Your task to perform on an android device: Add "logitech g903" to the cart on costco, then select checkout. Image 0: 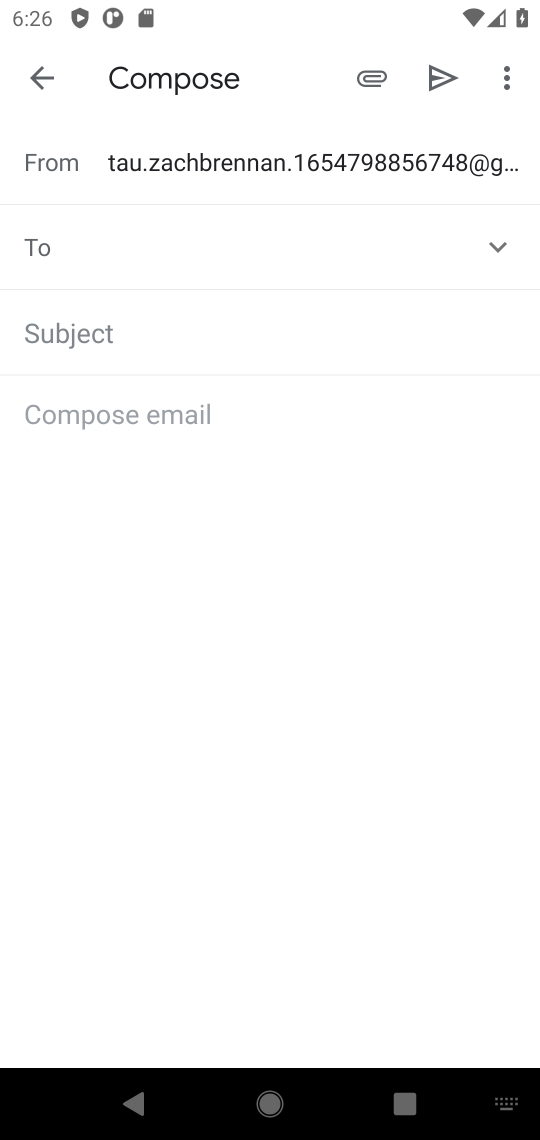
Step 0: press home button
Your task to perform on an android device: Add "logitech g903" to the cart on costco, then select checkout. Image 1: 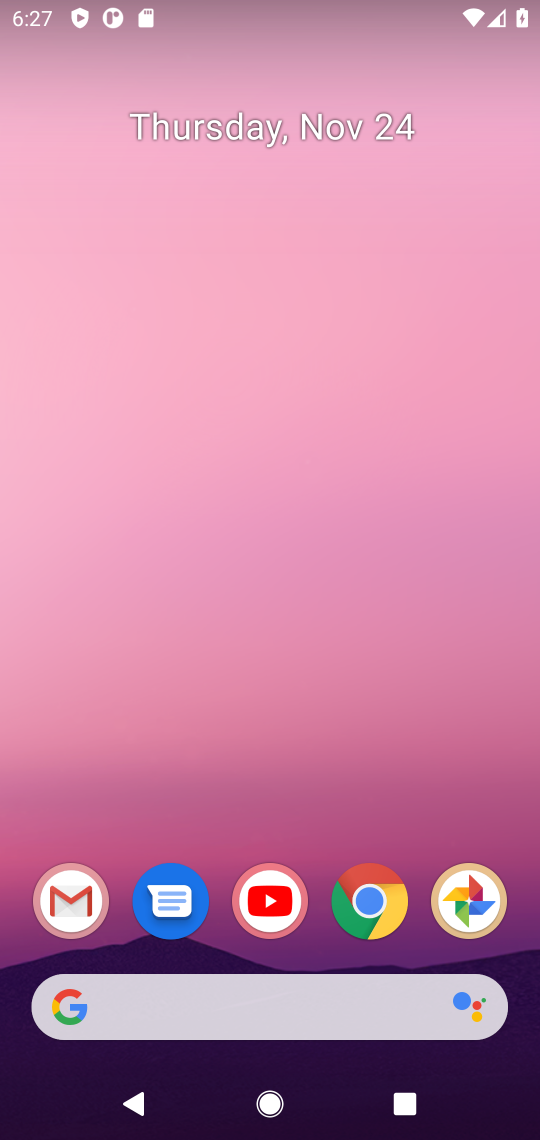
Step 1: click (377, 903)
Your task to perform on an android device: Add "logitech g903" to the cart on costco, then select checkout. Image 2: 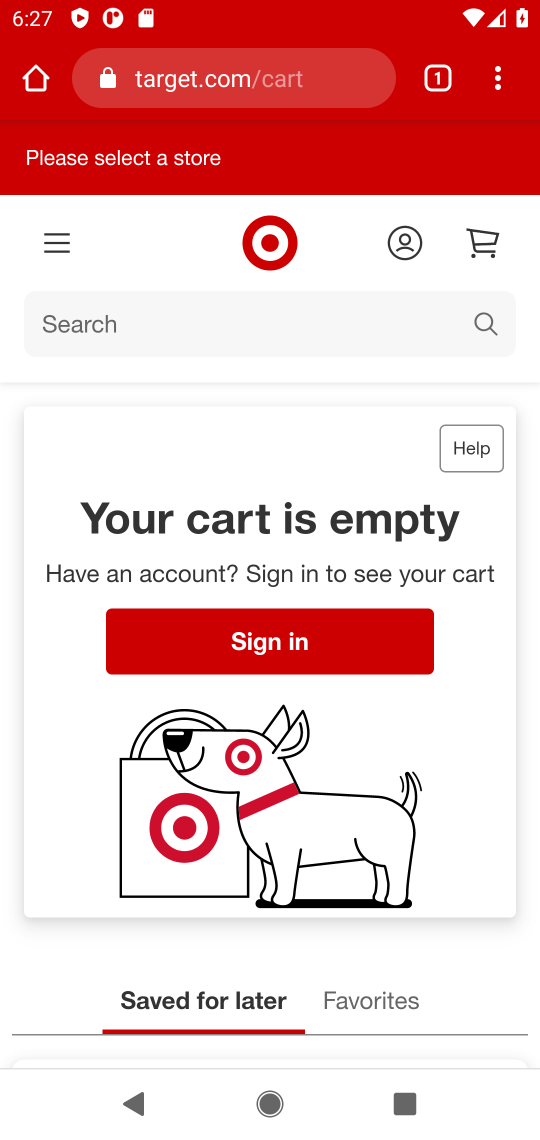
Step 2: click (283, 85)
Your task to perform on an android device: Add "logitech g903" to the cart on costco, then select checkout. Image 3: 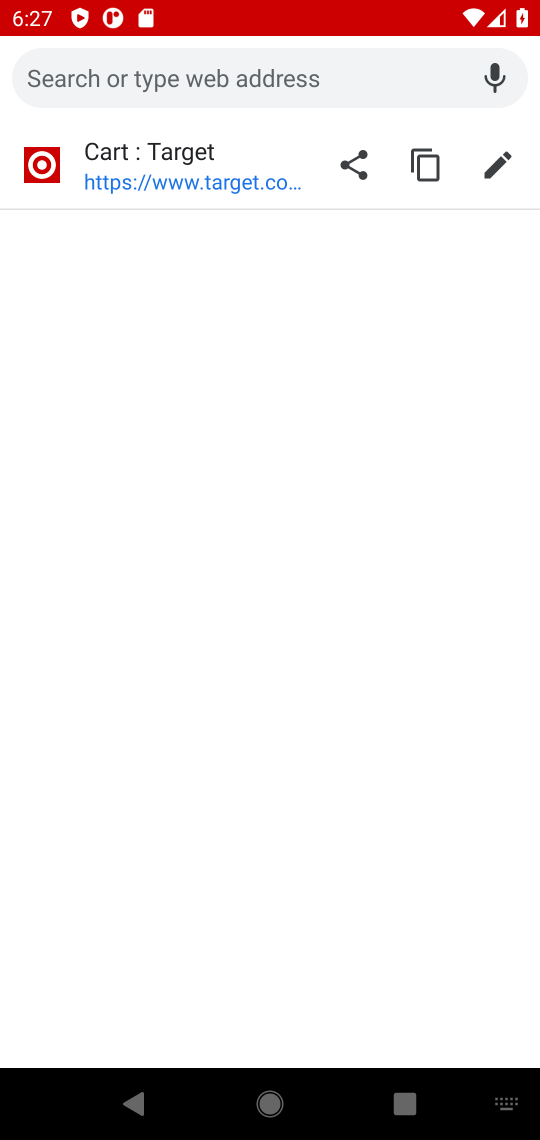
Step 3: click (280, 85)
Your task to perform on an android device: Add "logitech g903" to the cart on costco, then select checkout. Image 4: 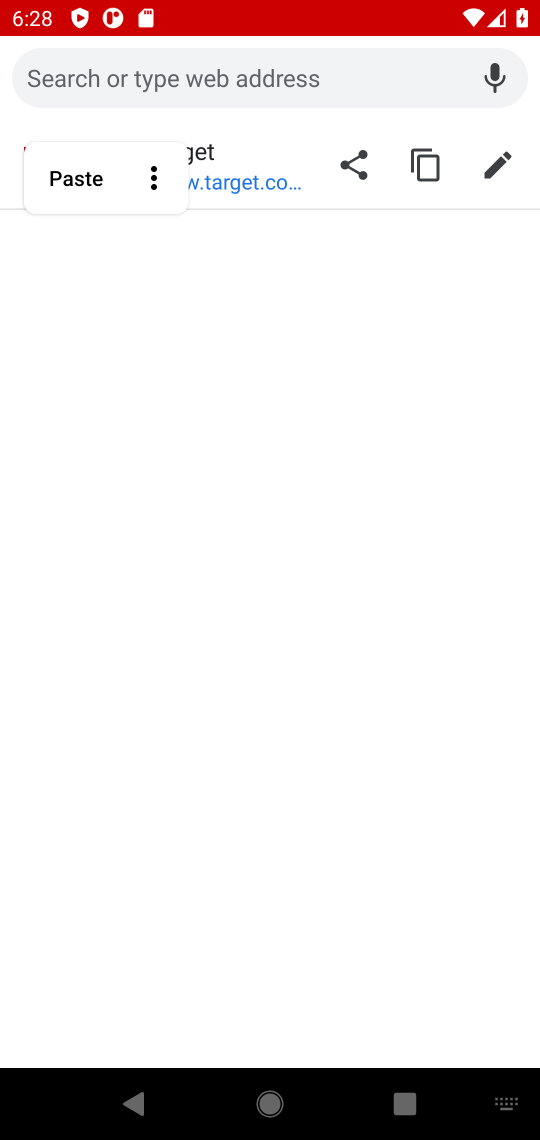
Step 4: type "costco"
Your task to perform on an android device: Add "logitech g903" to the cart on costco, then select checkout. Image 5: 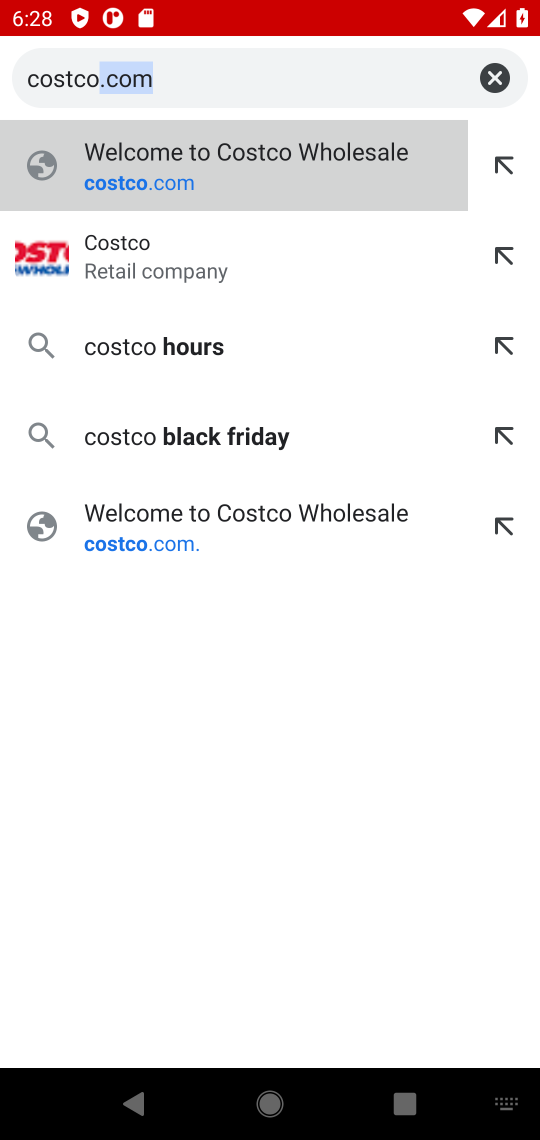
Step 5: click (337, 198)
Your task to perform on an android device: Add "logitech g903" to the cart on costco, then select checkout. Image 6: 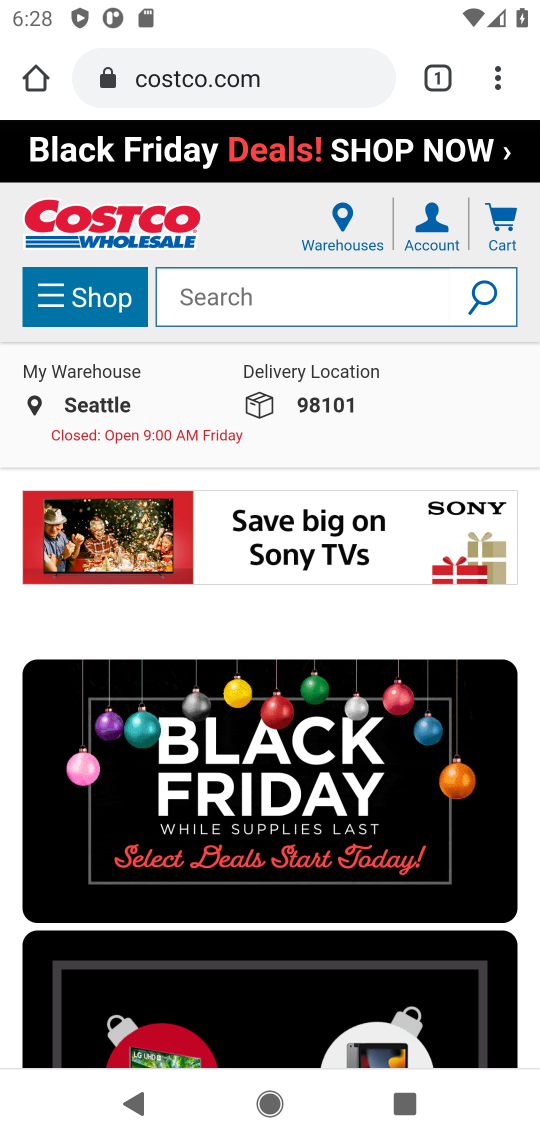
Step 6: click (339, 298)
Your task to perform on an android device: Add "logitech g903" to the cart on costco, then select checkout. Image 7: 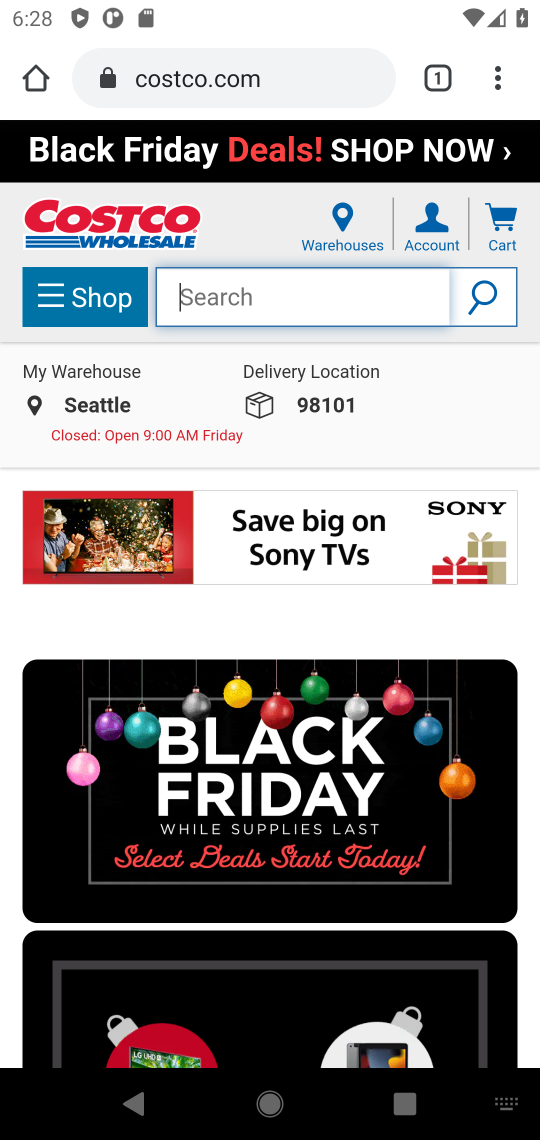
Step 7: type "logitech g903"
Your task to perform on an android device: Add "logitech g903" to the cart on costco, then select checkout. Image 8: 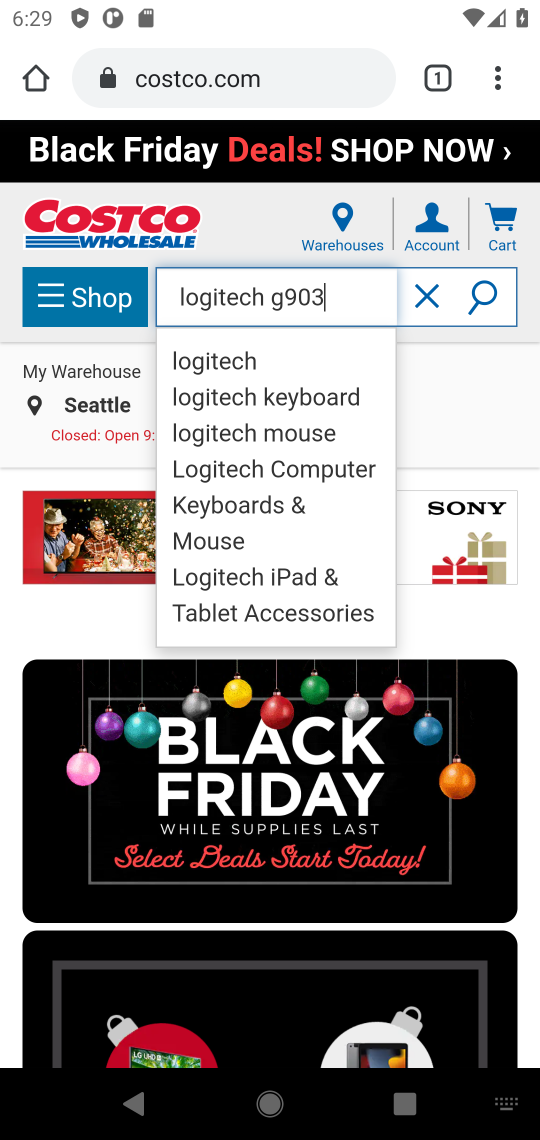
Step 8: press enter
Your task to perform on an android device: Add "logitech g903" to the cart on costco, then select checkout. Image 9: 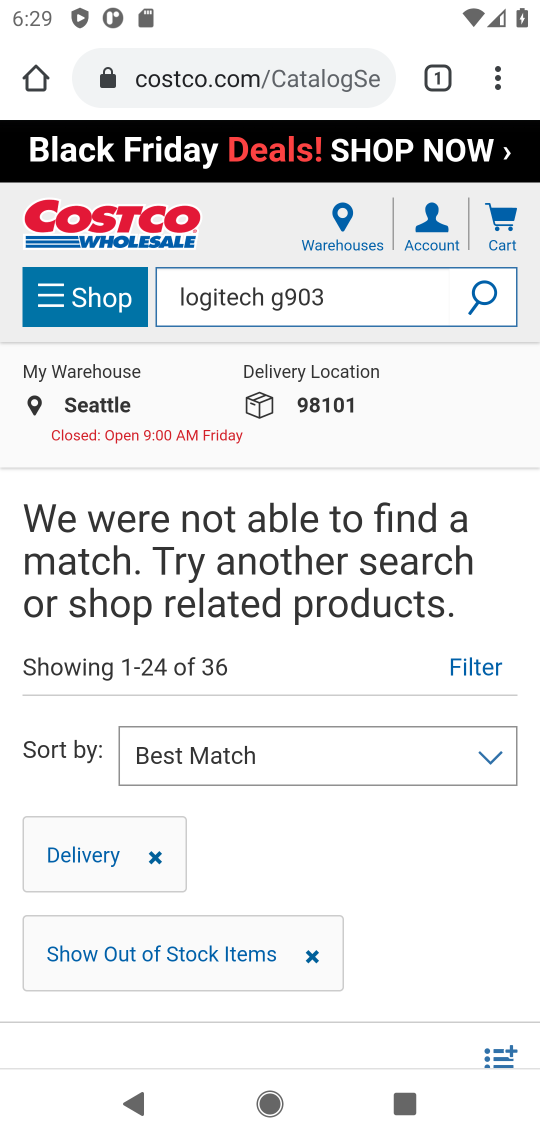
Step 9: task complete